Your task to perform on an android device: choose inbox layout in the gmail app Image 0: 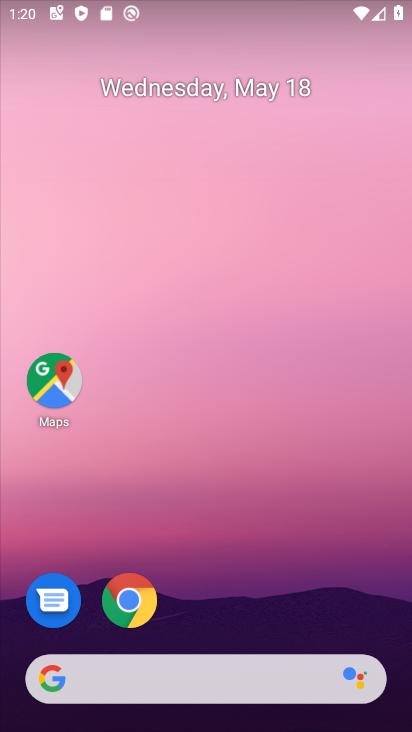
Step 0: drag from (234, 559) to (166, 120)
Your task to perform on an android device: choose inbox layout in the gmail app Image 1: 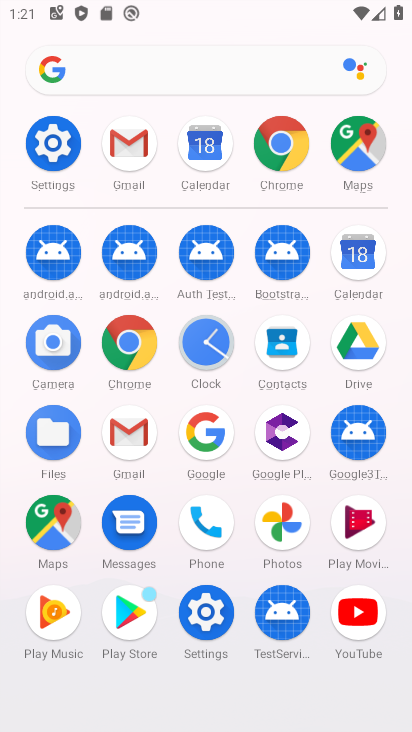
Step 1: click (132, 432)
Your task to perform on an android device: choose inbox layout in the gmail app Image 2: 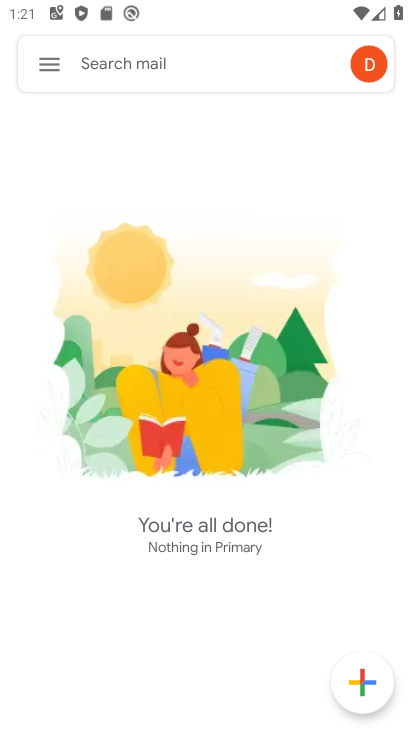
Step 2: click (47, 64)
Your task to perform on an android device: choose inbox layout in the gmail app Image 3: 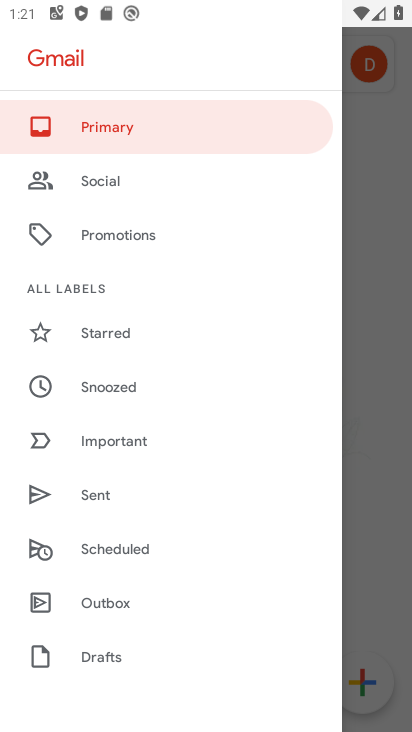
Step 3: drag from (118, 482) to (136, 390)
Your task to perform on an android device: choose inbox layout in the gmail app Image 4: 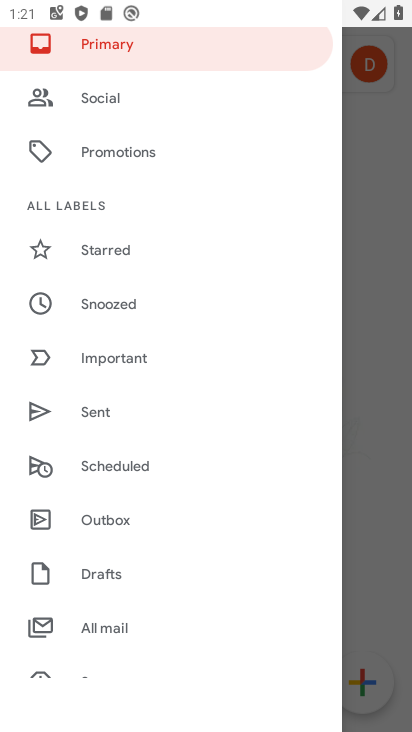
Step 4: drag from (124, 496) to (149, 426)
Your task to perform on an android device: choose inbox layout in the gmail app Image 5: 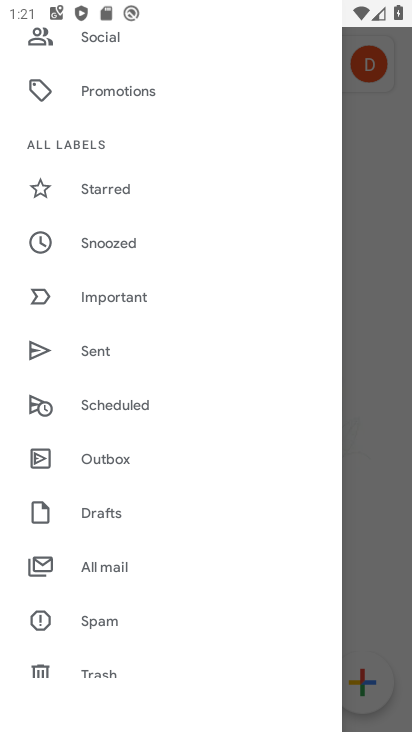
Step 5: drag from (113, 504) to (136, 431)
Your task to perform on an android device: choose inbox layout in the gmail app Image 6: 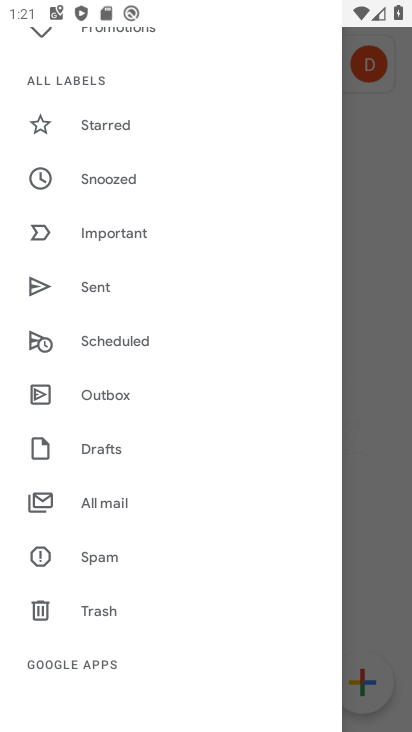
Step 6: drag from (94, 530) to (140, 437)
Your task to perform on an android device: choose inbox layout in the gmail app Image 7: 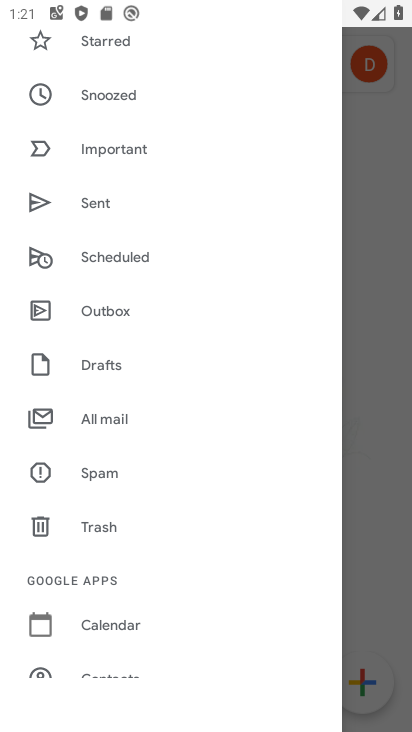
Step 7: drag from (116, 550) to (154, 468)
Your task to perform on an android device: choose inbox layout in the gmail app Image 8: 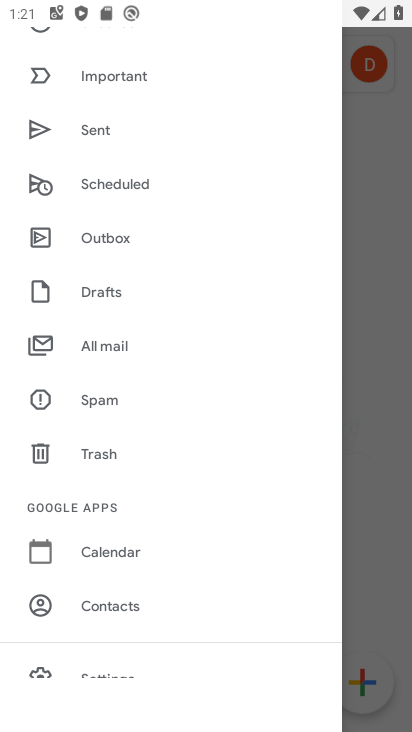
Step 8: drag from (101, 571) to (164, 425)
Your task to perform on an android device: choose inbox layout in the gmail app Image 9: 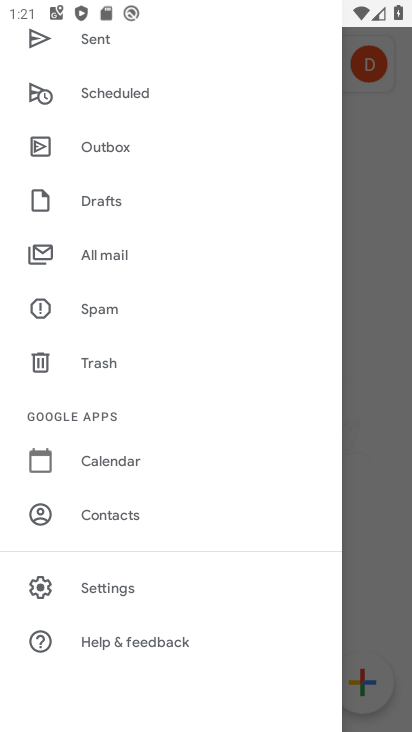
Step 9: click (122, 588)
Your task to perform on an android device: choose inbox layout in the gmail app Image 10: 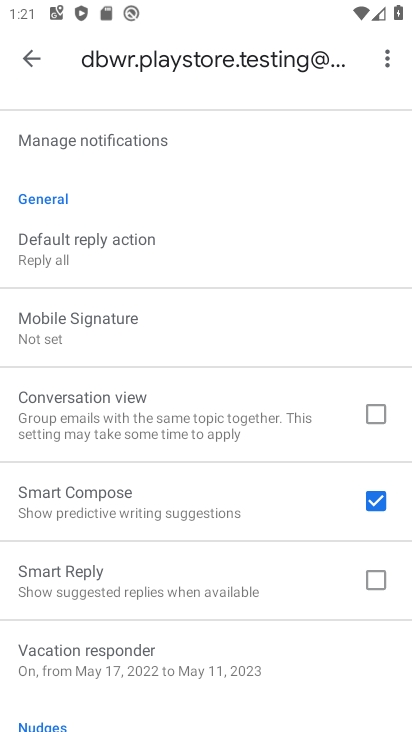
Step 10: drag from (105, 188) to (110, 364)
Your task to perform on an android device: choose inbox layout in the gmail app Image 11: 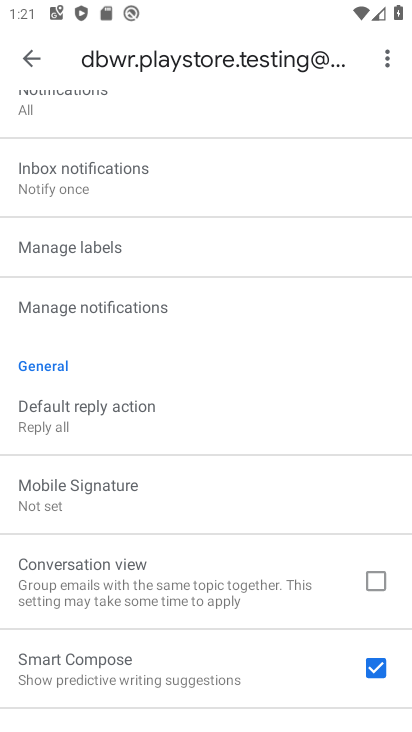
Step 11: drag from (96, 150) to (114, 347)
Your task to perform on an android device: choose inbox layout in the gmail app Image 12: 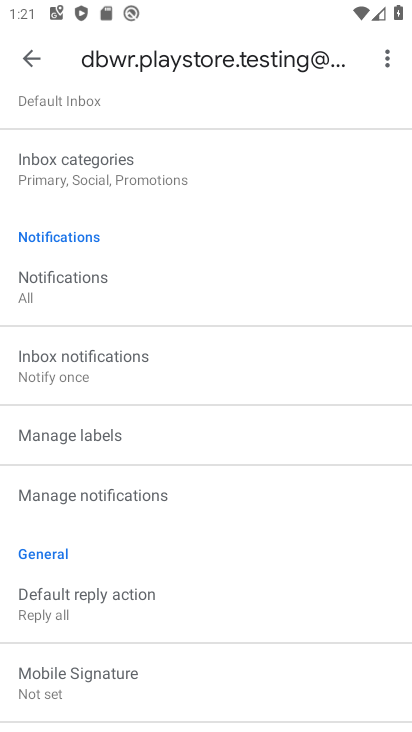
Step 12: drag from (94, 211) to (123, 340)
Your task to perform on an android device: choose inbox layout in the gmail app Image 13: 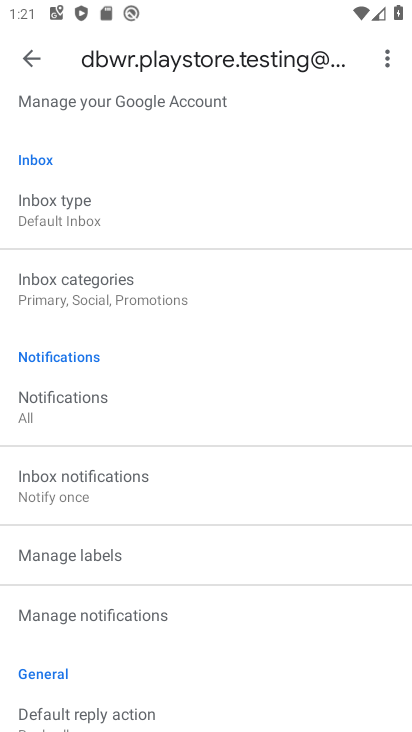
Step 13: click (69, 213)
Your task to perform on an android device: choose inbox layout in the gmail app Image 14: 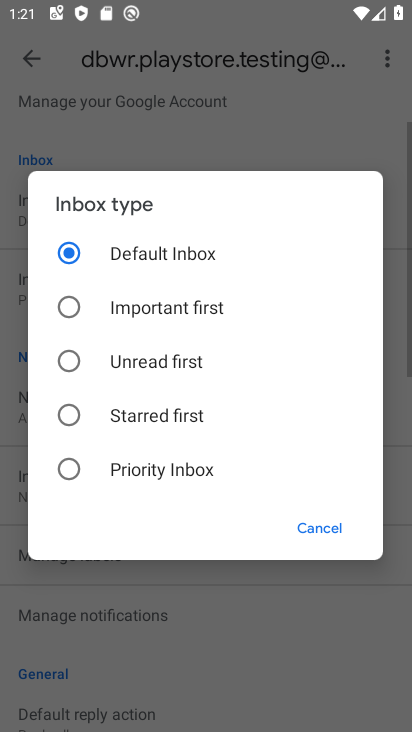
Step 14: click (136, 306)
Your task to perform on an android device: choose inbox layout in the gmail app Image 15: 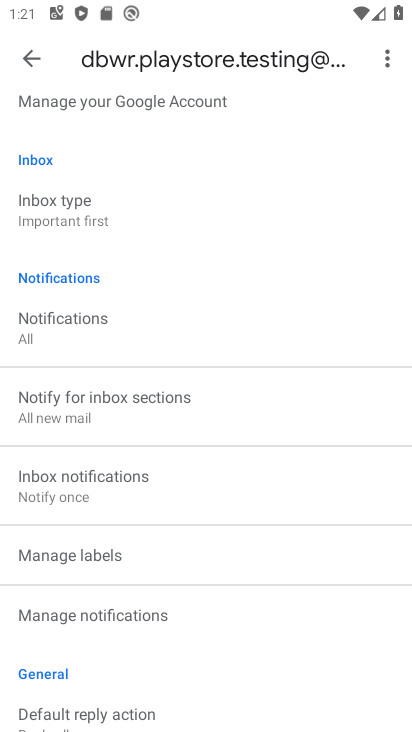
Step 15: task complete